Your task to perform on an android device: Search for seafood restaurants on Google Maps Image 0: 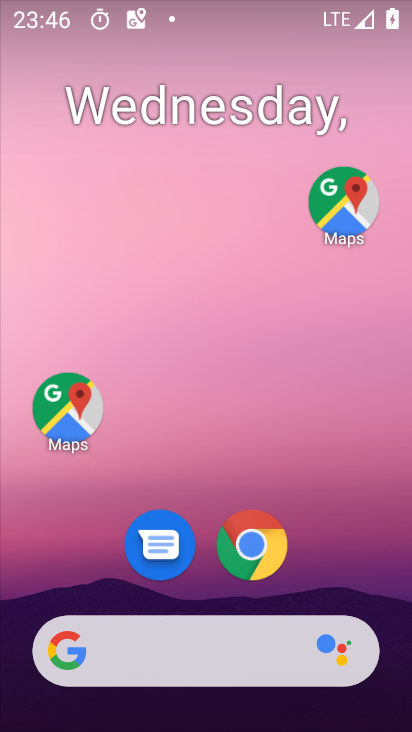
Step 0: drag from (294, 578) to (216, 5)
Your task to perform on an android device: Search for seafood restaurants on Google Maps Image 1: 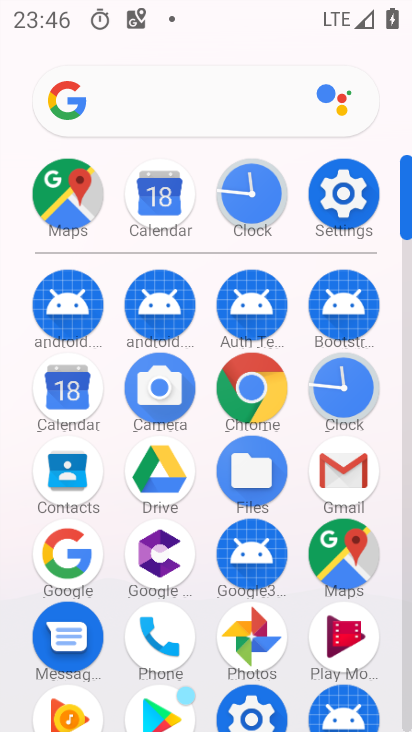
Step 1: click (66, 173)
Your task to perform on an android device: Search for seafood restaurants on Google Maps Image 2: 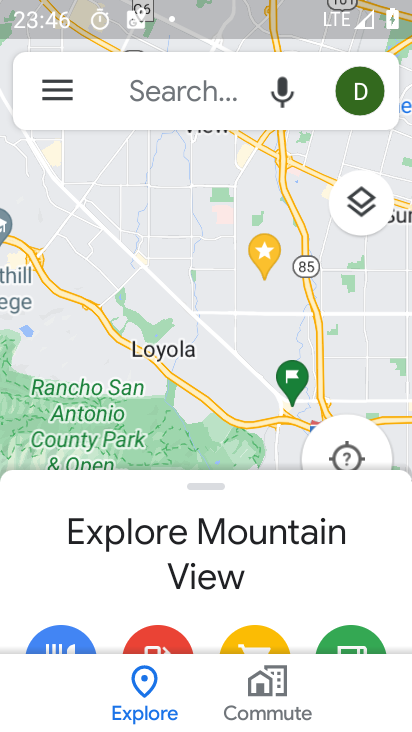
Step 2: click (124, 89)
Your task to perform on an android device: Search for seafood restaurants on Google Maps Image 3: 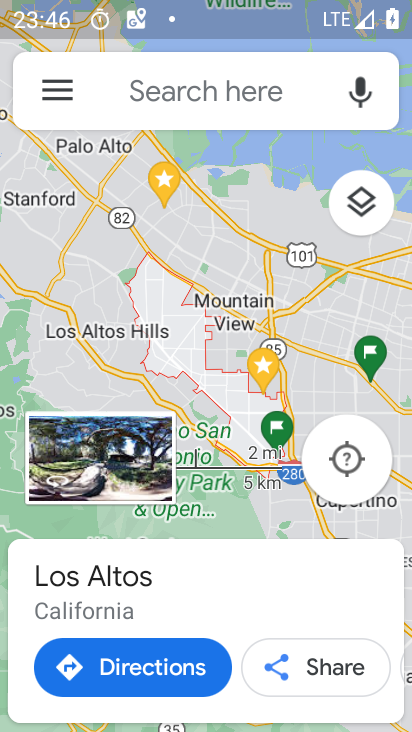
Step 3: click (165, 89)
Your task to perform on an android device: Search for seafood restaurants on Google Maps Image 4: 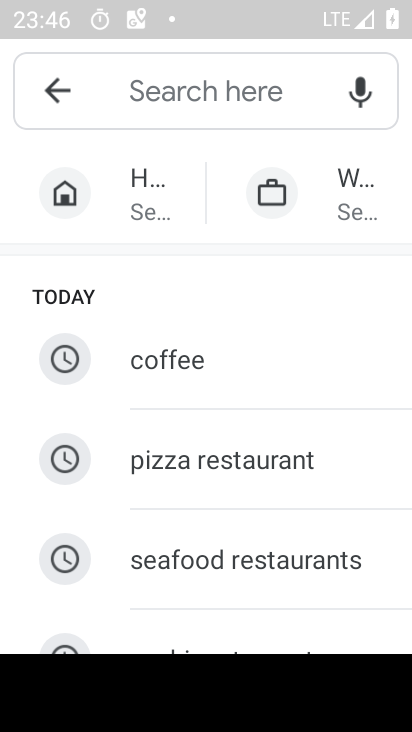
Step 4: type "seafood restaurants"
Your task to perform on an android device: Search for seafood restaurants on Google Maps Image 5: 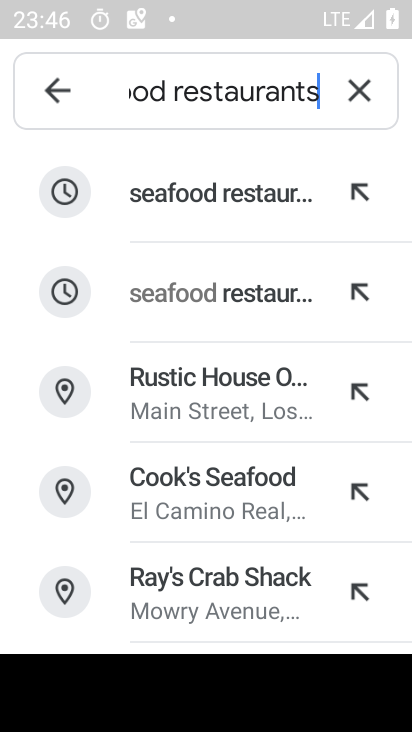
Step 5: click (245, 208)
Your task to perform on an android device: Search for seafood restaurants on Google Maps Image 6: 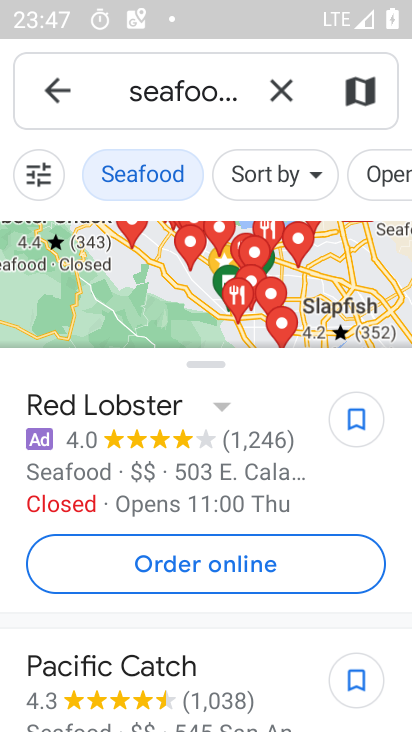
Step 6: task complete